Your task to perform on an android device: Go to network settings Image 0: 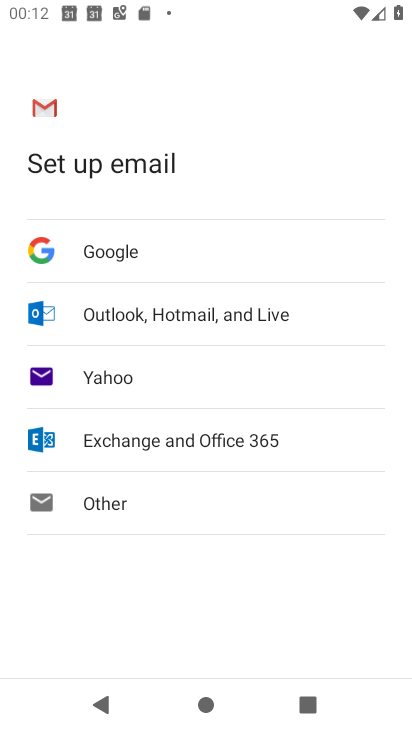
Step 0: press home button
Your task to perform on an android device: Go to network settings Image 1: 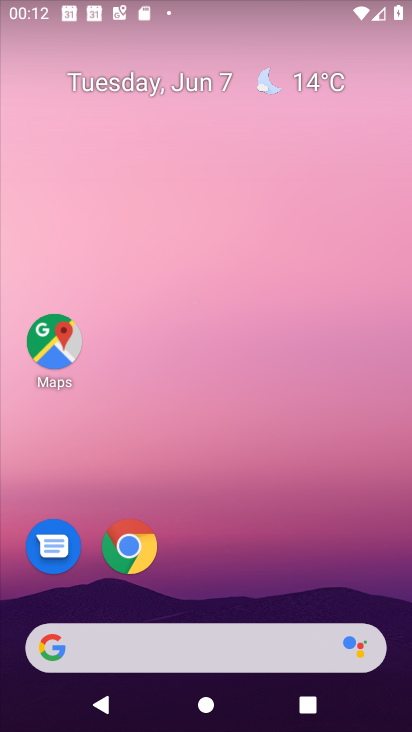
Step 1: drag from (148, 529) to (163, 368)
Your task to perform on an android device: Go to network settings Image 2: 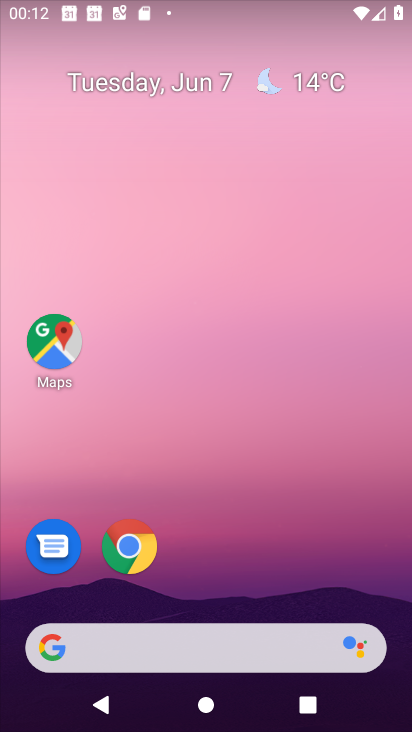
Step 2: drag from (183, 599) to (252, 72)
Your task to perform on an android device: Go to network settings Image 3: 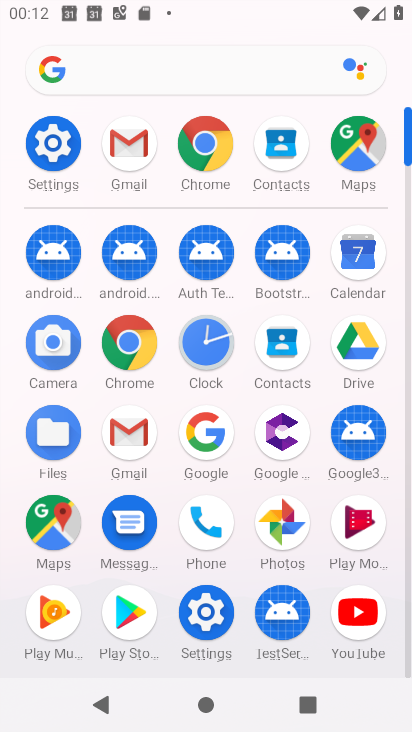
Step 3: click (55, 170)
Your task to perform on an android device: Go to network settings Image 4: 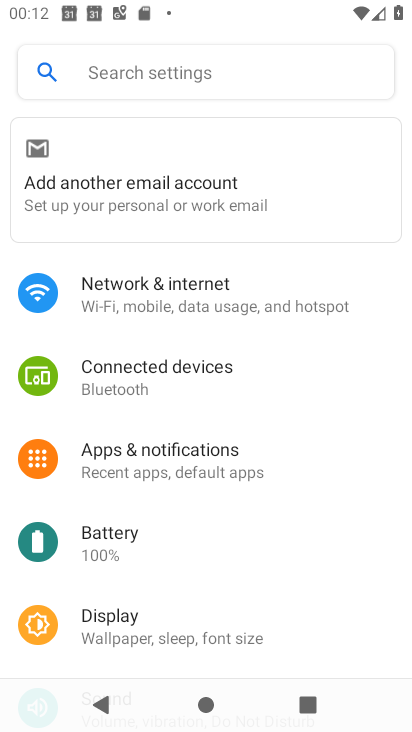
Step 4: click (138, 309)
Your task to perform on an android device: Go to network settings Image 5: 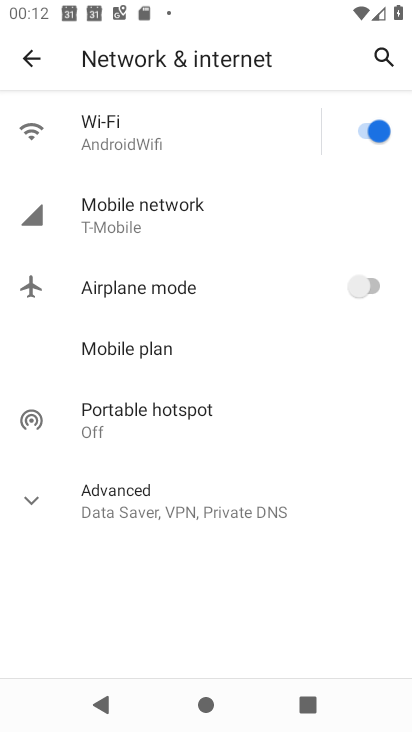
Step 5: click (201, 221)
Your task to perform on an android device: Go to network settings Image 6: 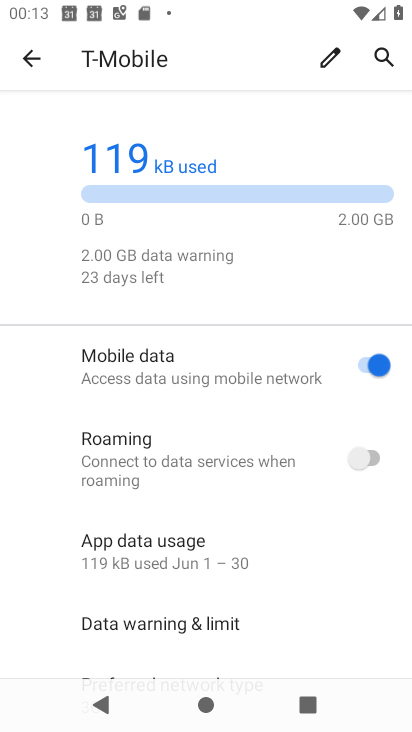
Step 6: task complete